Your task to perform on an android device: install app "PlayWell" Image 0: 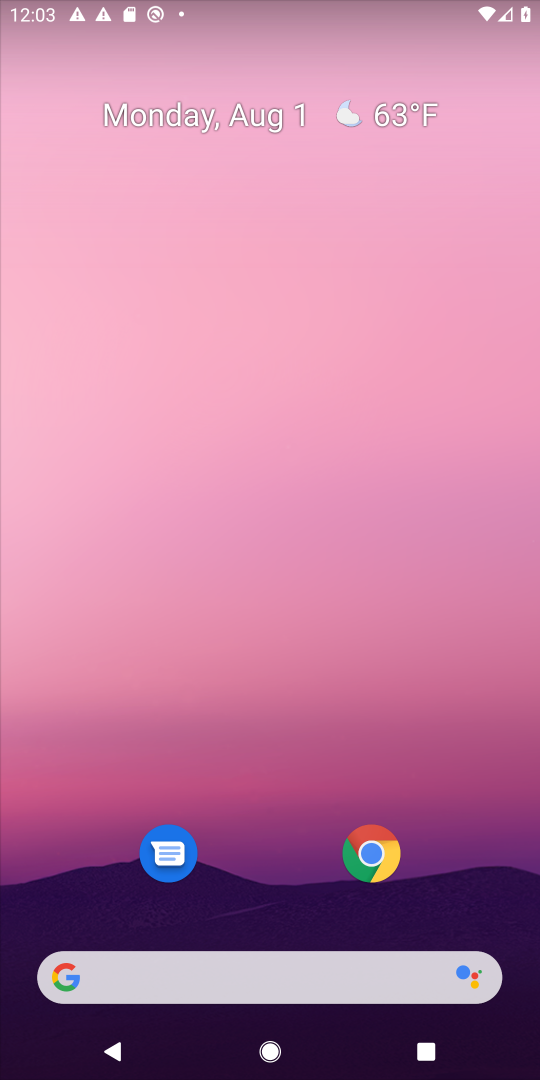
Step 0: drag from (325, 1065) to (326, 20)
Your task to perform on an android device: install app "PlayWell" Image 1: 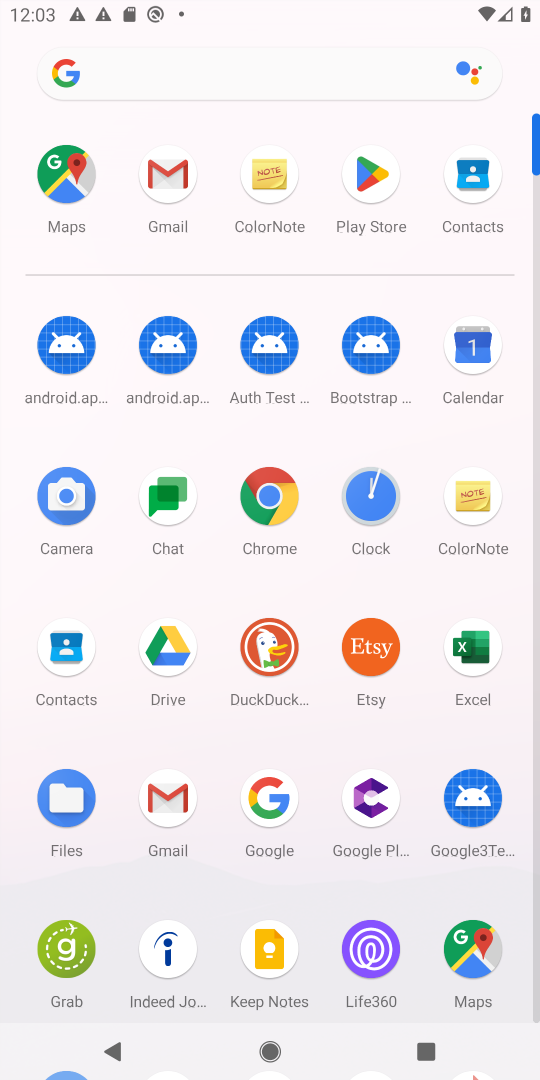
Step 1: click (368, 169)
Your task to perform on an android device: install app "PlayWell" Image 2: 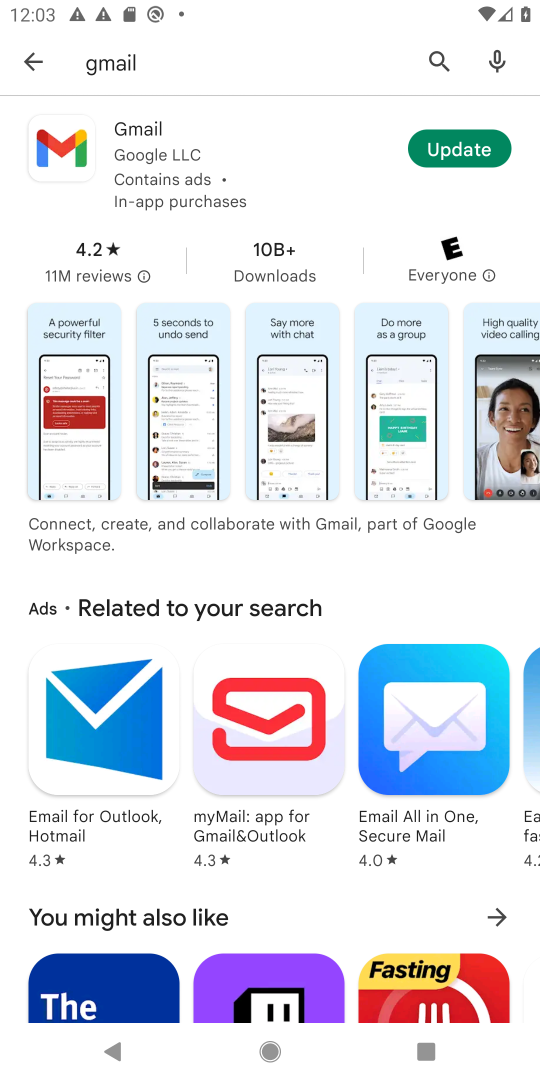
Step 2: click (442, 54)
Your task to perform on an android device: install app "PlayWell" Image 3: 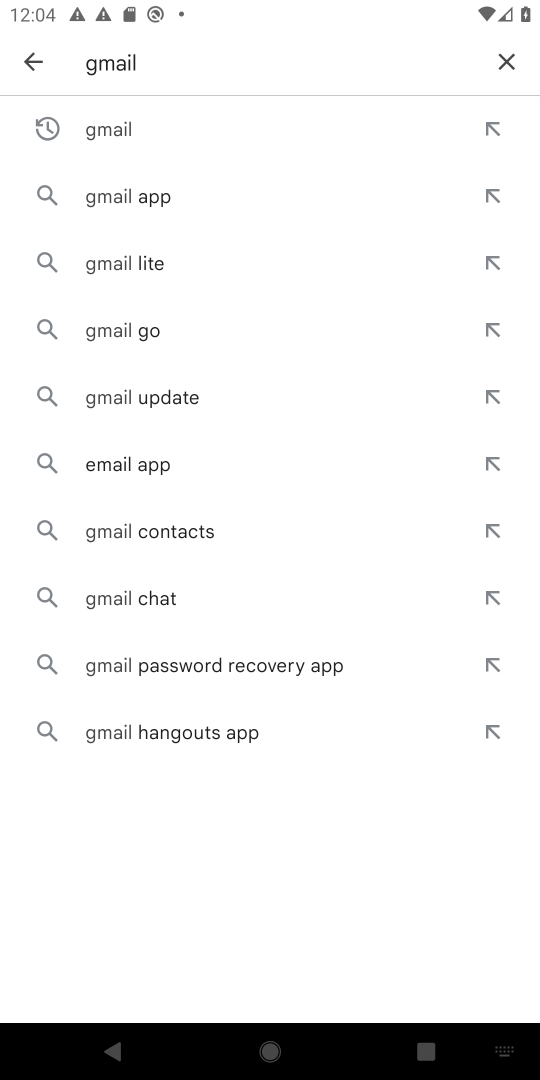
Step 3: click (511, 54)
Your task to perform on an android device: install app "PlayWell" Image 4: 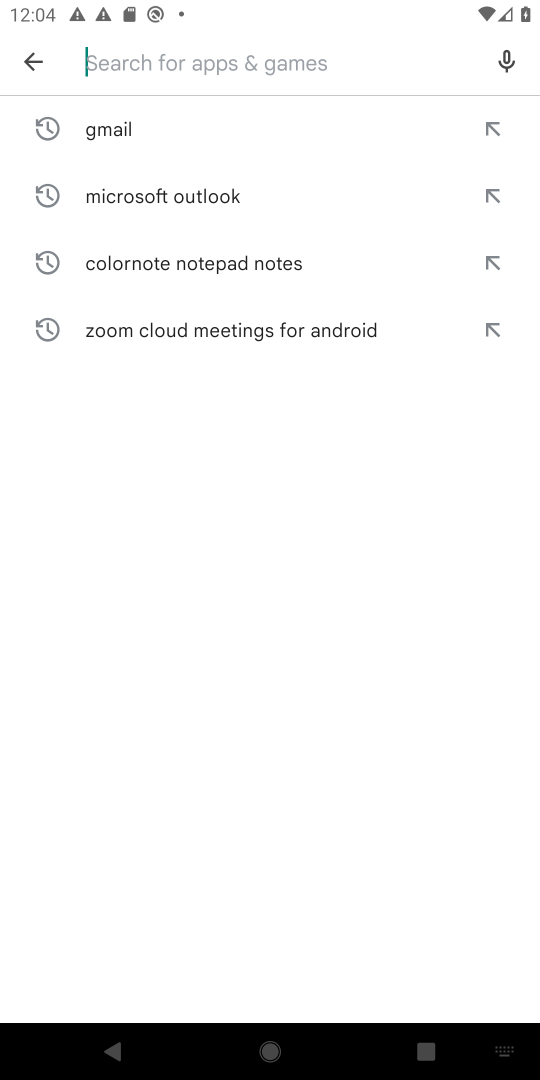
Step 4: type "PlayWell"
Your task to perform on an android device: install app "PlayWell" Image 5: 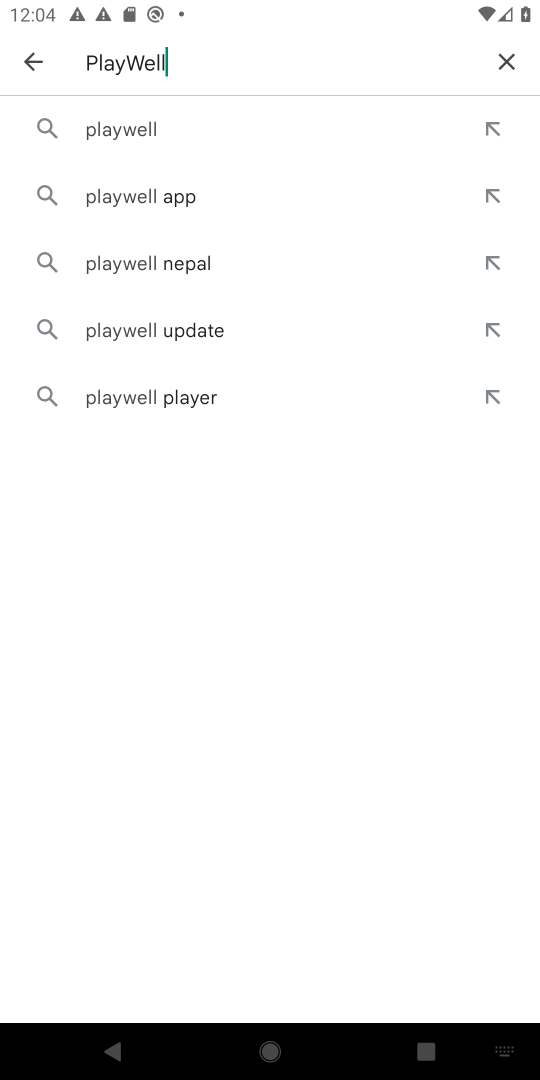
Step 5: click (103, 124)
Your task to perform on an android device: install app "PlayWell" Image 6: 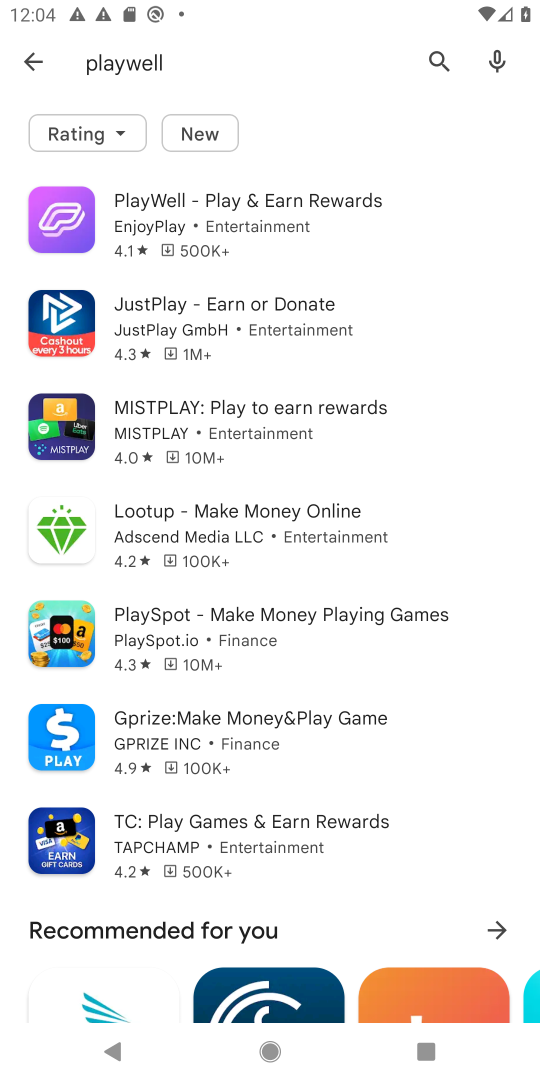
Step 6: click (155, 206)
Your task to perform on an android device: install app "PlayWell" Image 7: 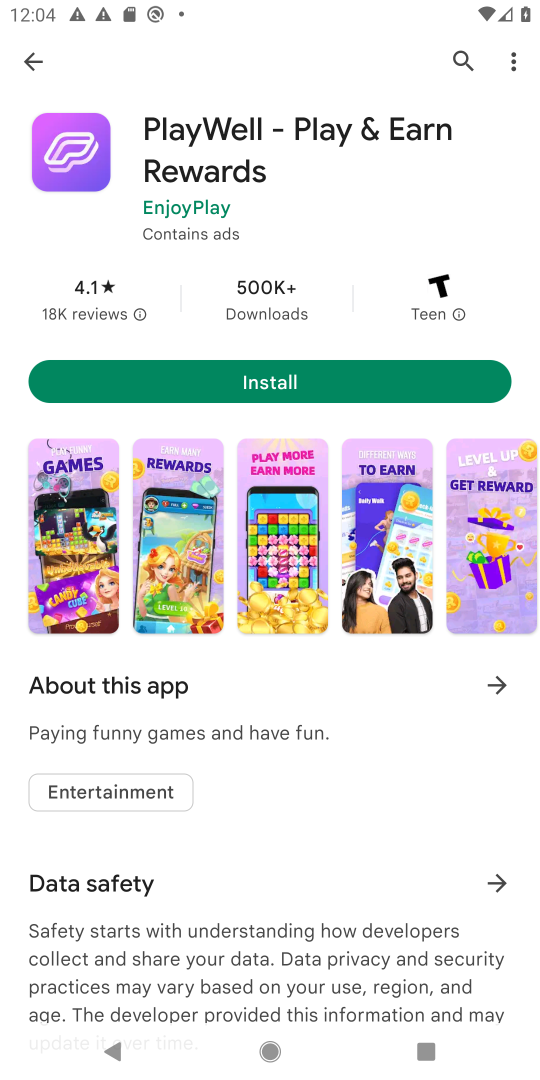
Step 7: click (252, 385)
Your task to perform on an android device: install app "PlayWell" Image 8: 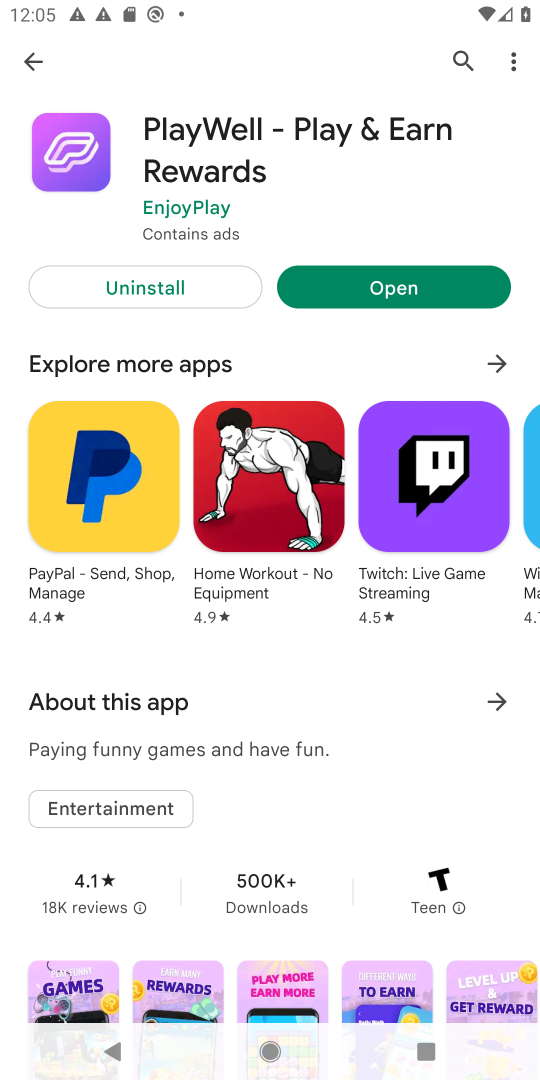
Step 8: click (460, 61)
Your task to perform on an android device: install app "PlayWell" Image 9: 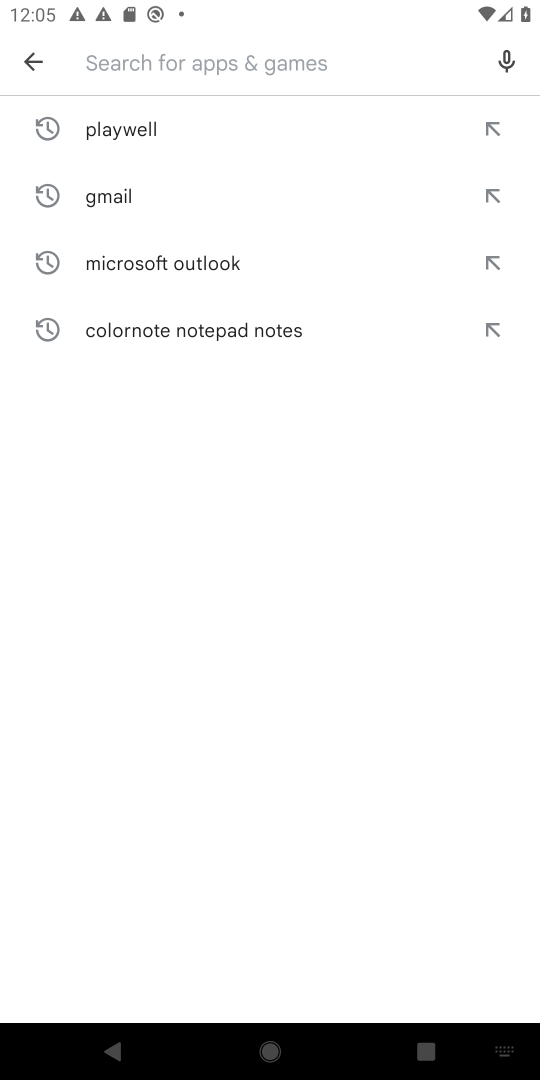
Step 9: type "PlayWell"
Your task to perform on an android device: install app "PlayWell" Image 10: 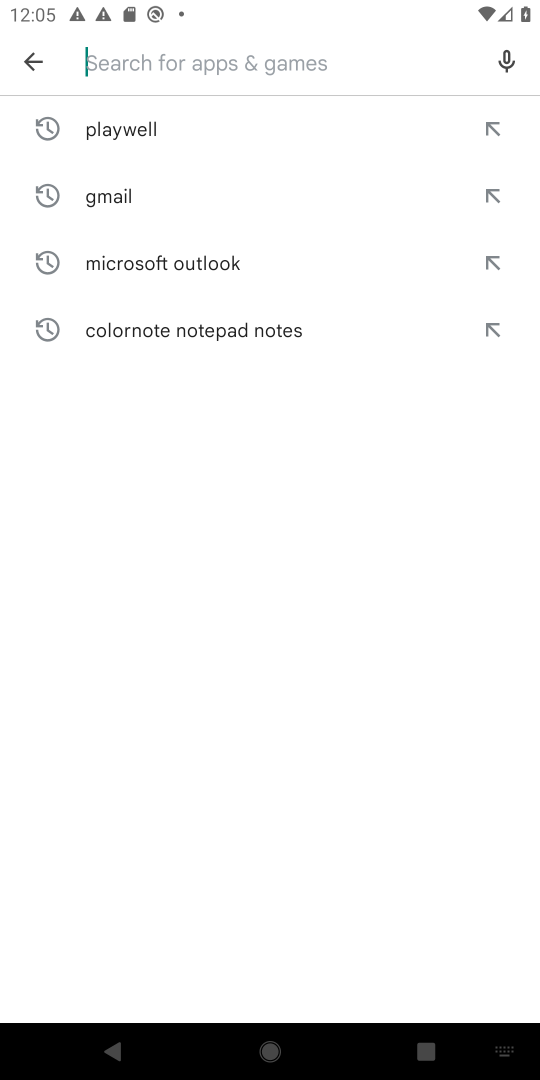
Step 10: click (101, 121)
Your task to perform on an android device: install app "PlayWell" Image 11: 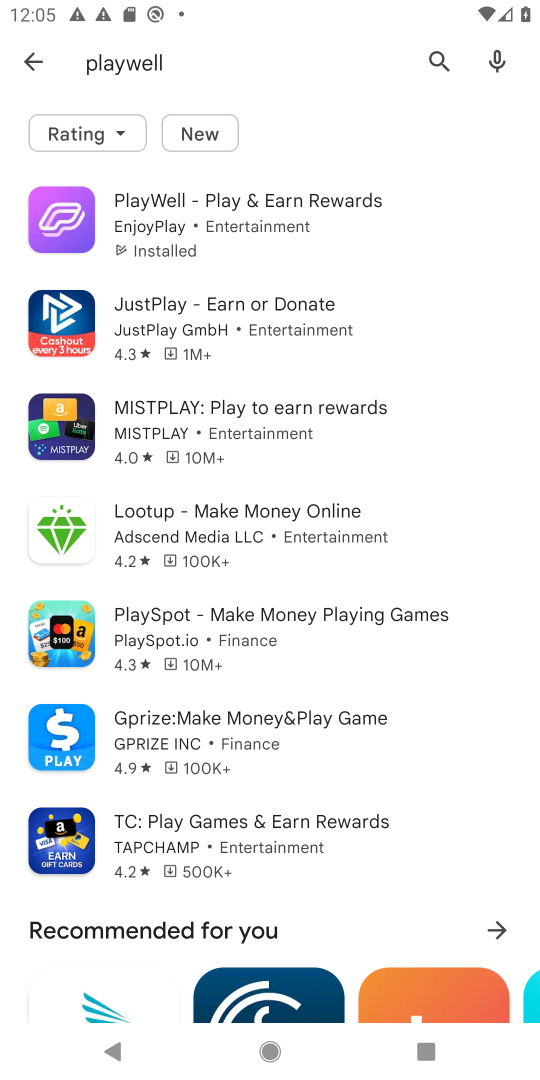
Step 11: click (142, 209)
Your task to perform on an android device: install app "PlayWell" Image 12: 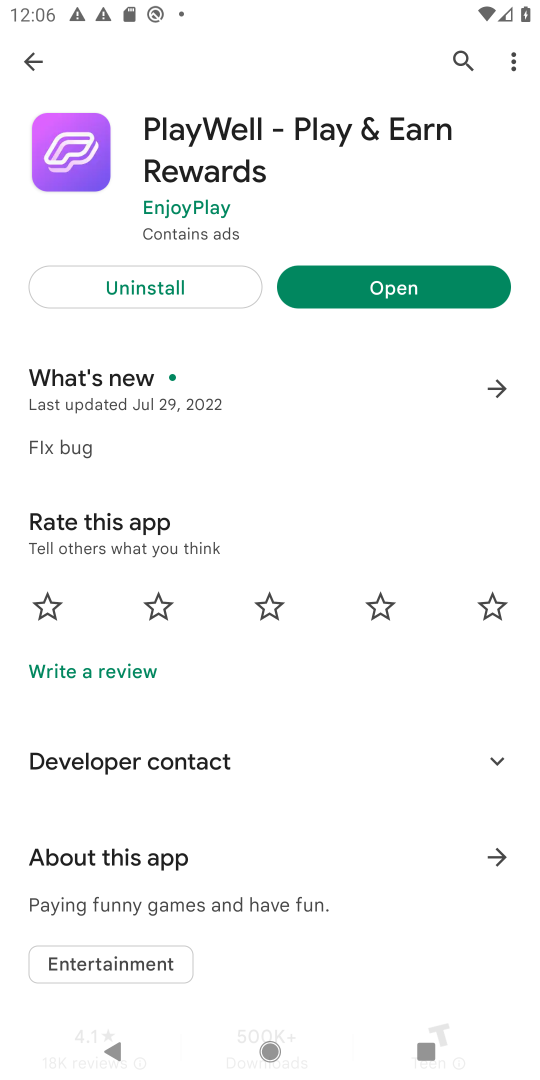
Step 12: task complete